Your task to perform on an android device: Open the map Image 0: 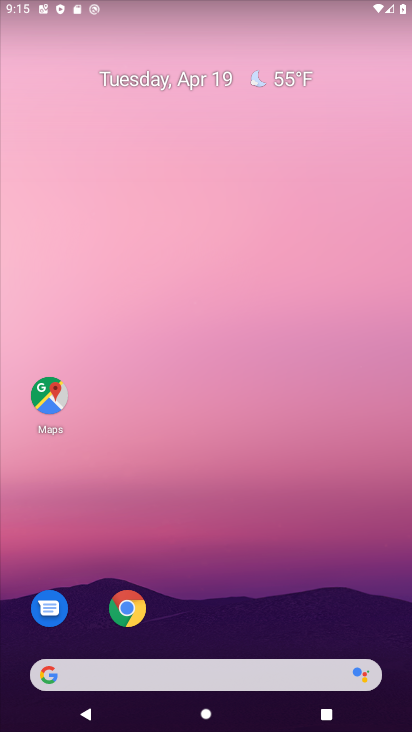
Step 0: click (41, 393)
Your task to perform on an android device: Open the map Image 1: 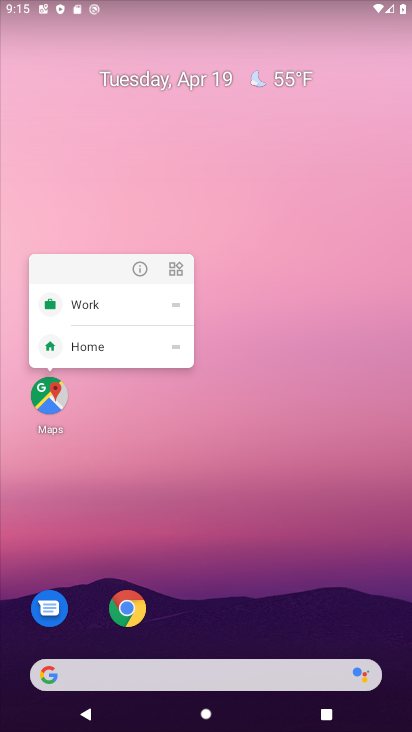
Step 1: click (49, 391)
Your task to perform on an android device: Open the map Image 2: 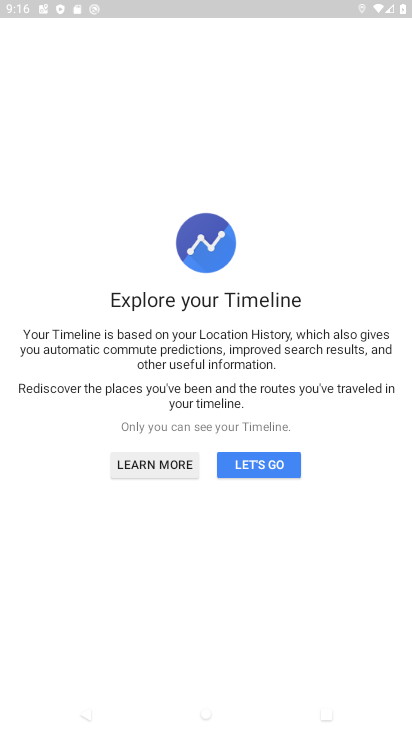
Step 2: click (266, 461)
Your task to perform on an android device: Open the map Image 3: 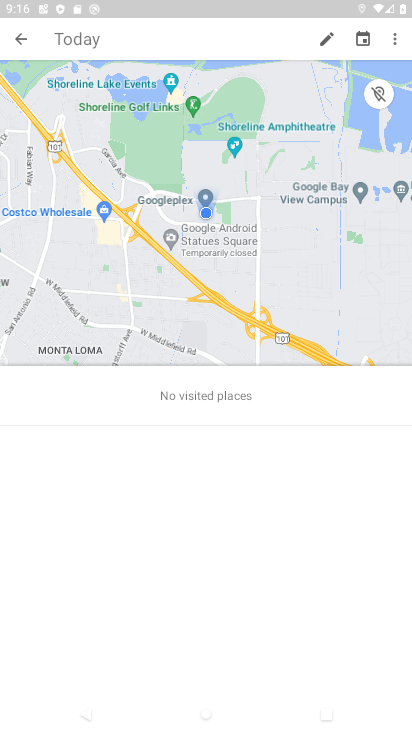
Step 3: task complete